Your task to perform on an android device: change the clock display to digital Image 0: 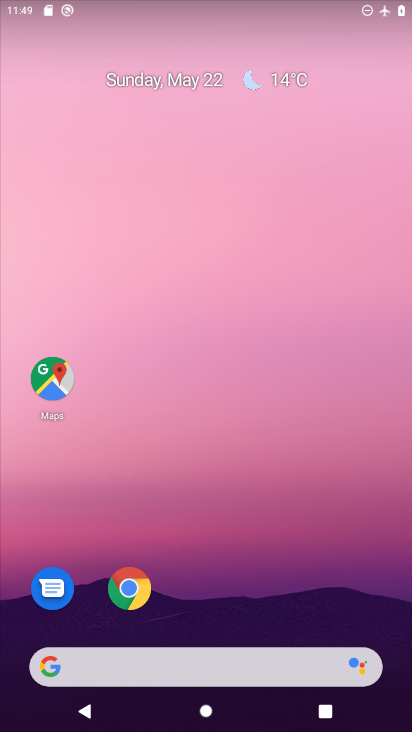
Step 0: drag from (223, 613) to (236, 210)
Your task to perform on an android device: change the clock display to digital Image 1: 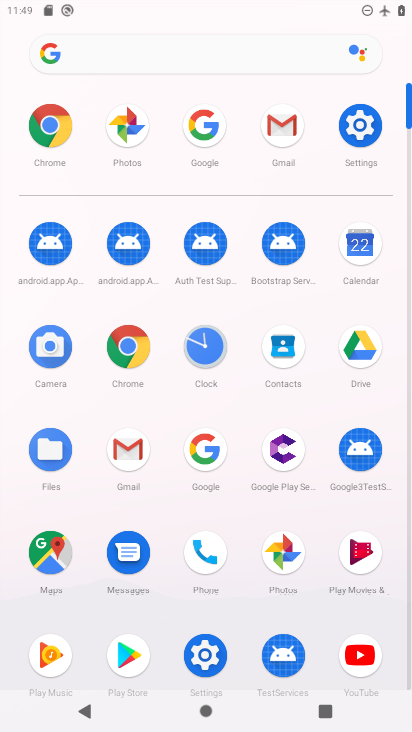
Step 1: click (209, 342)
Your task to perform on an android device: change the clock display to digital Image 2: 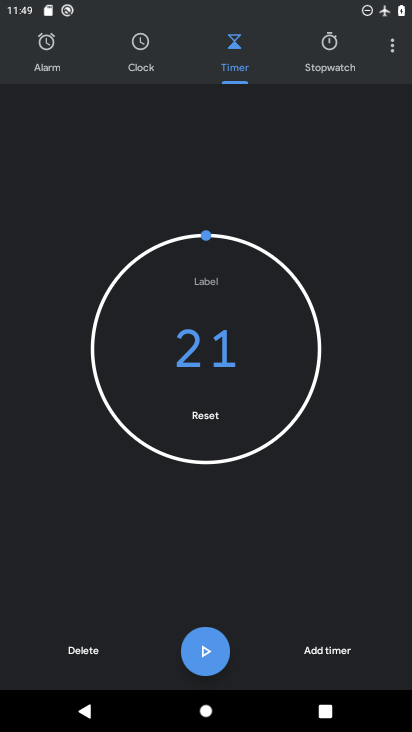
Step 2: click (392, 52)
Your task to perform on an android device: change the clock display to digital Image 3: 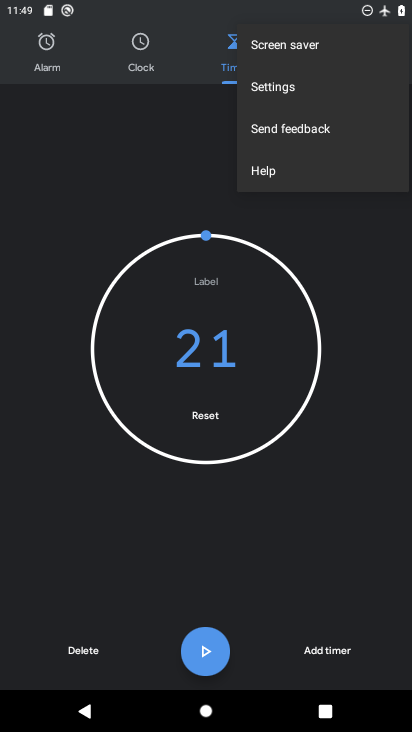
Step 3: click (281, 88)
Your task to perform on an android device: change the clock display to digital Image 4: 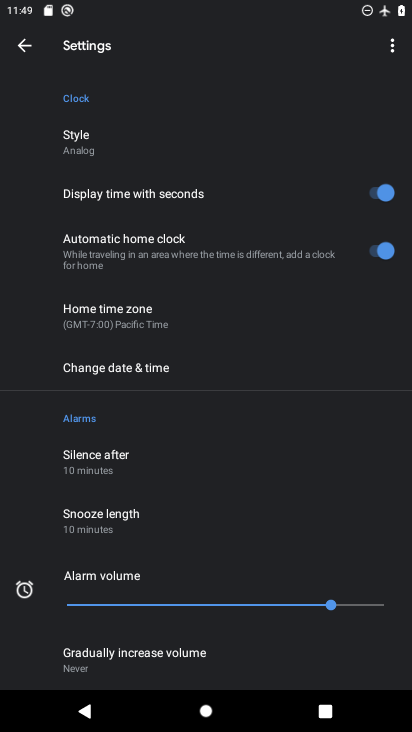
Step 4: click (103, 143)
Your task to perform on an android device: change the clock display to digital Image 5: 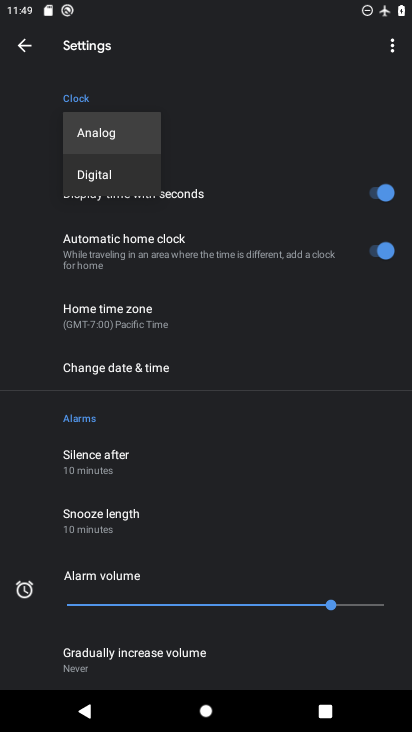
Step 5: click (117, 171)
Your task to perform on an android device: change the clock display to digital Image 6: 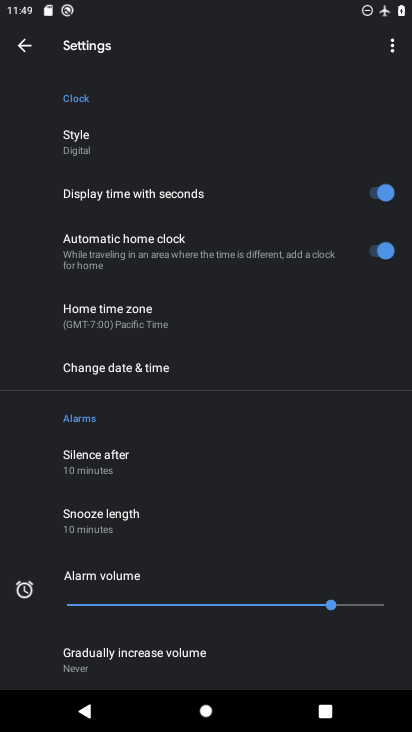
Step 6: task complete